Your task to perform on an android device: Show me recent news Image 0: 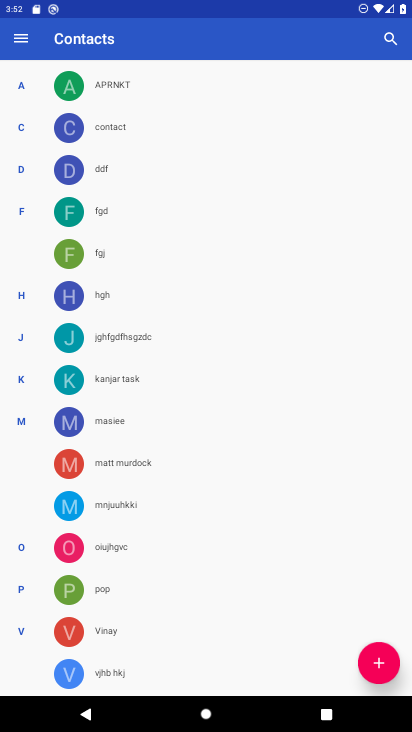
Step 0: press home button
Your task to perform on an android device: Show me recent news Image 1: 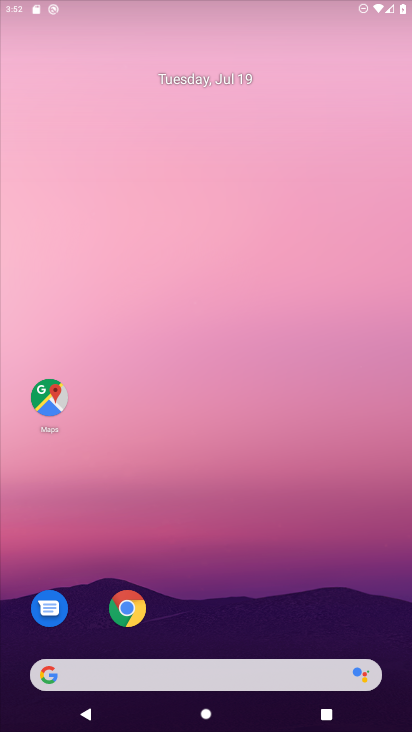
Step 1: drag from (310, 596) to (227, 124)
Your task to perform on an android device: Show me recent news Image 2: 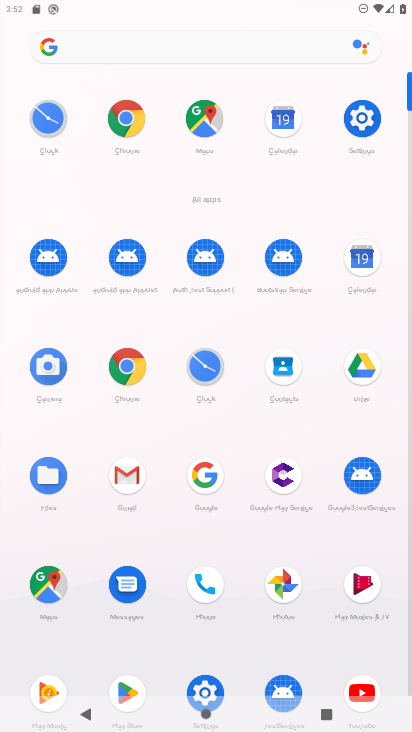
Step 2: click (127, 376)
Your task to perform on an android device: Show me recent news Image 3: 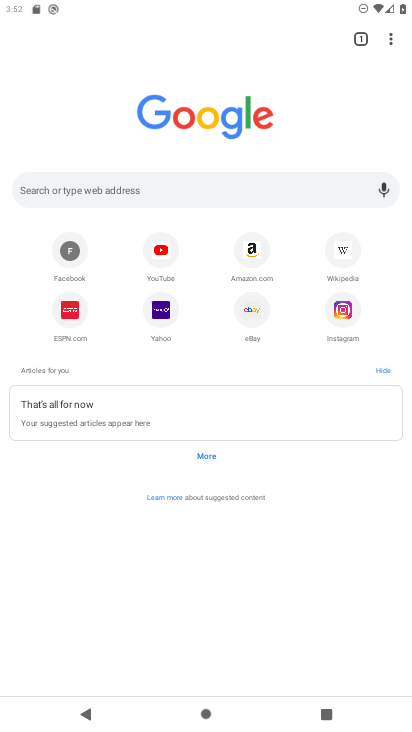
Step 3: click (188, 192)
Your task to perform on an android device: Show me recent news Image 4: 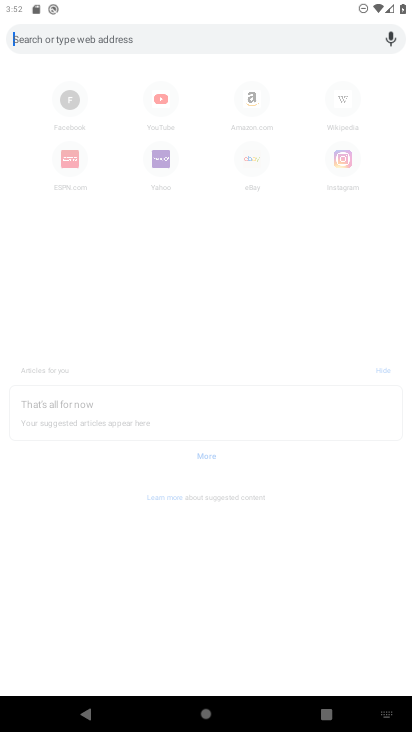
Step 4: type "news"
Your task to perform on an android device: Show me recent news Image 5: 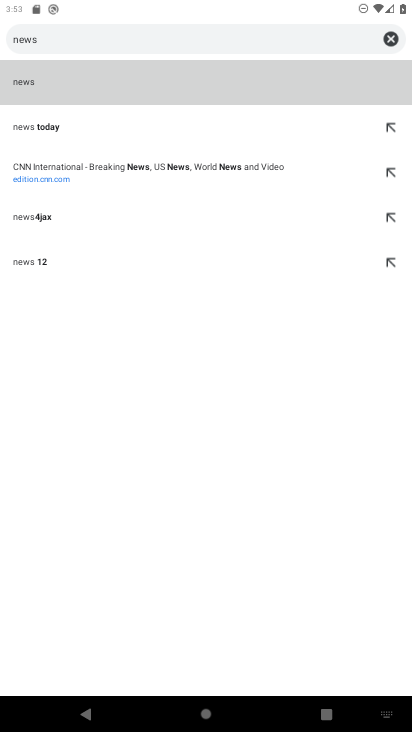
Step 5: click (24, 79)
Your task to perform on an android device: Show me recent news Image 6: 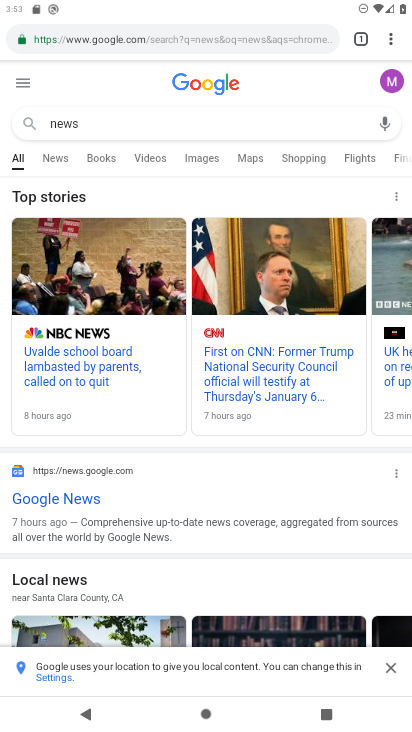
Step 6: click (64, 491)
Your task to perform on an android device: Show me recent news Image 7: 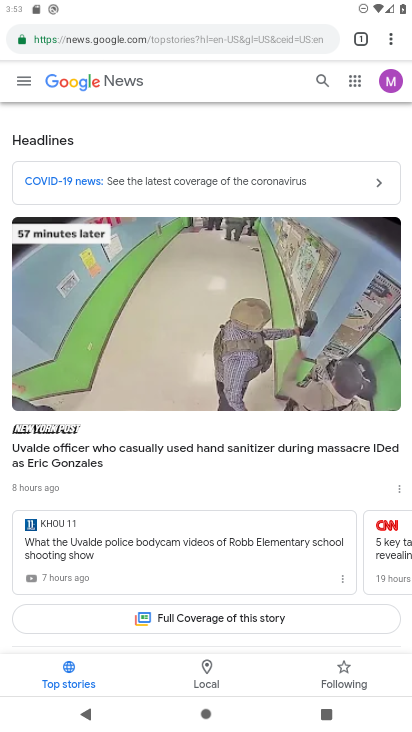
Step 7: task complete